Your task to perform on an android device: Open my contact list Image 0: 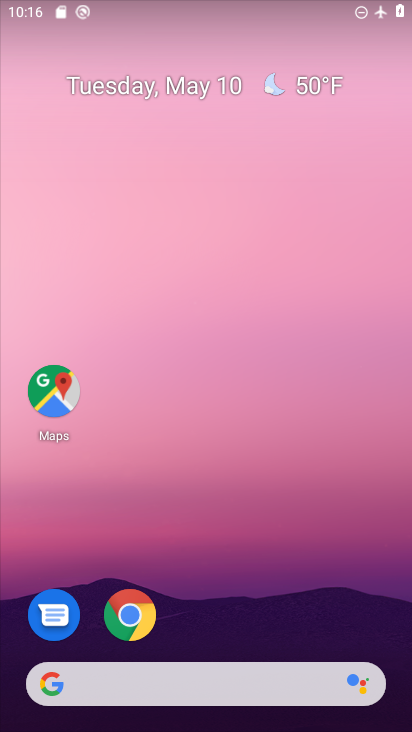
Step 0: drag from (393, 649) to (297, 85)
Your task to perform on an android device: Open my contact list Image 1: 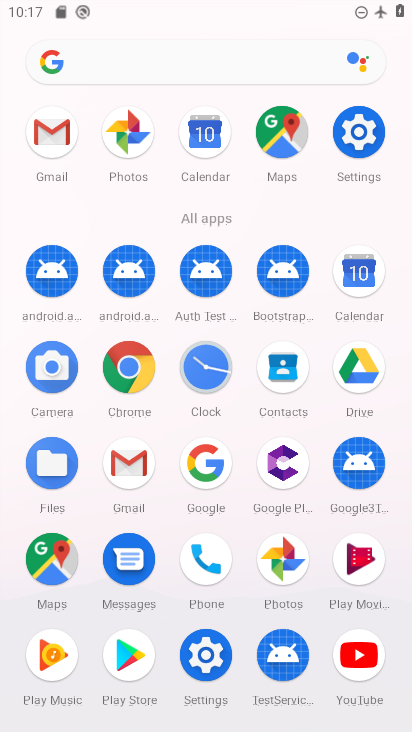
Step 1: click (280, 365)
Your task to perform on an android device: Open my contact list Image 2: 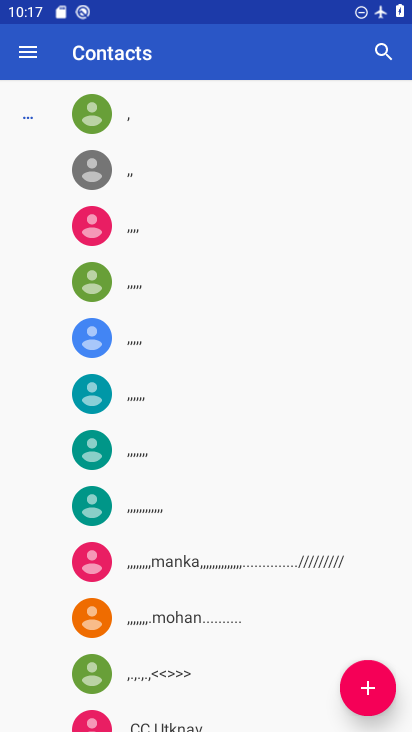
Step 2: task complete